Your task to perform on an android device: Go to settings Image 0: 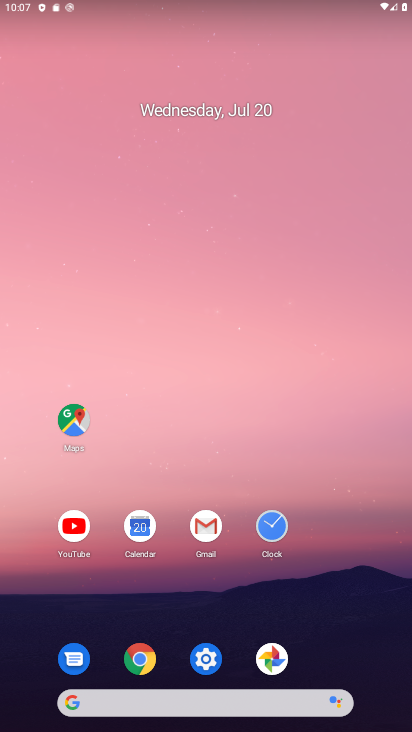
Step 0: click (207, 656)
Your task to perform on an android device: Go to settings Image 1: 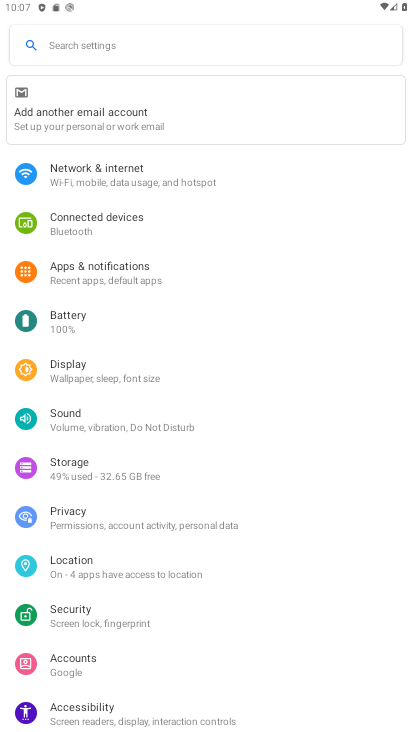
Step 1: task complete